Your task to perform on an android device: turn off translation in the chrome app Image 0: 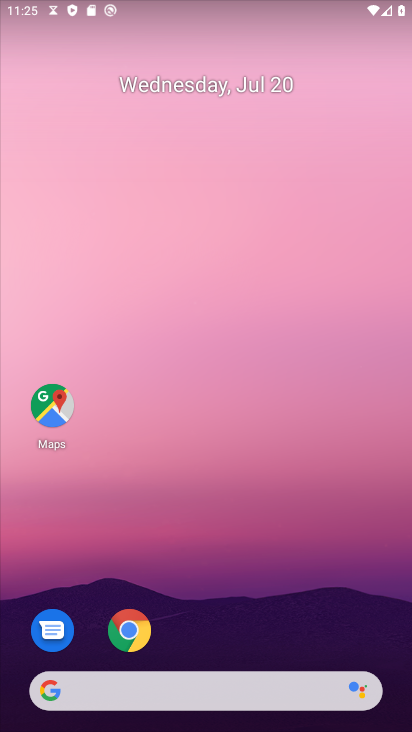
Step 0: click (137, 635)
Your task to perform on an android device: turn off translation in the chrome app Image 1: 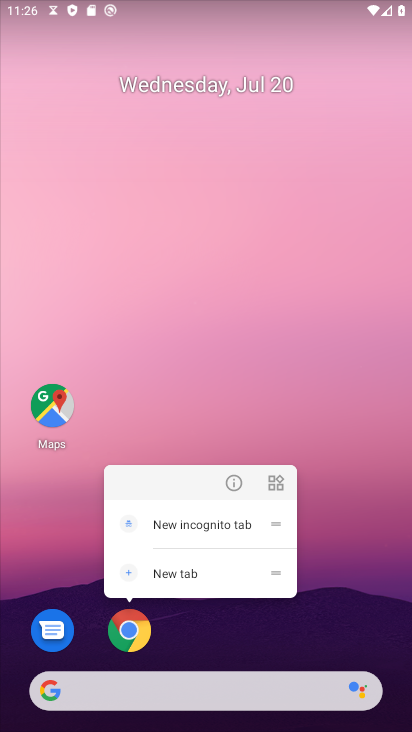
Step 1: click (122, 632)
Your task to perform on an android device: turn off translation in the chrome app Image 2: 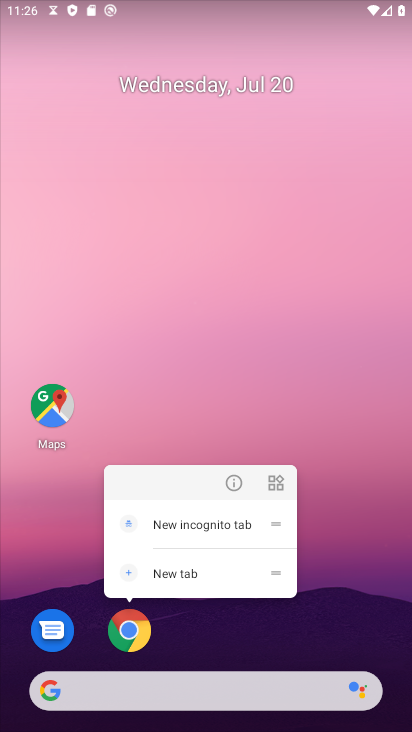
Step 2: click (131, 637)
Your task to perform on an android device: turn off translation in the chrome app Image 3: 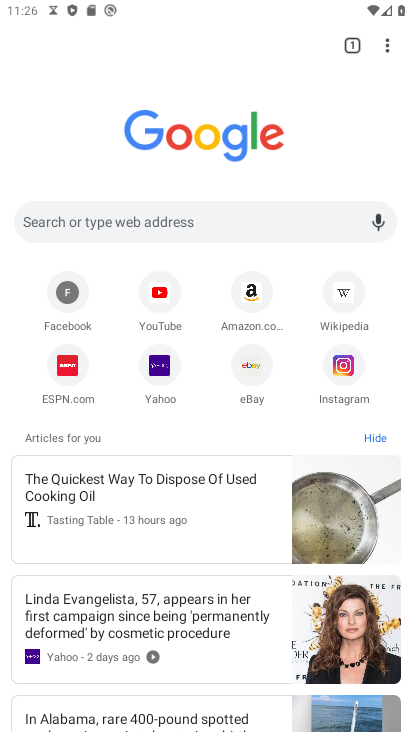
Step 3: click (389, 48)
Your task to perform on an android device: turn off translation in the chrome app Image 4: 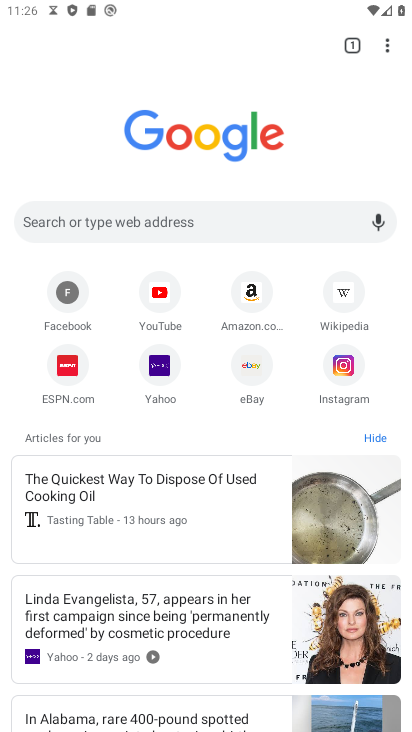
Step 4: click (385, 49)
Your task to perform on an android device: turn off translation in the chrome app Image 5: 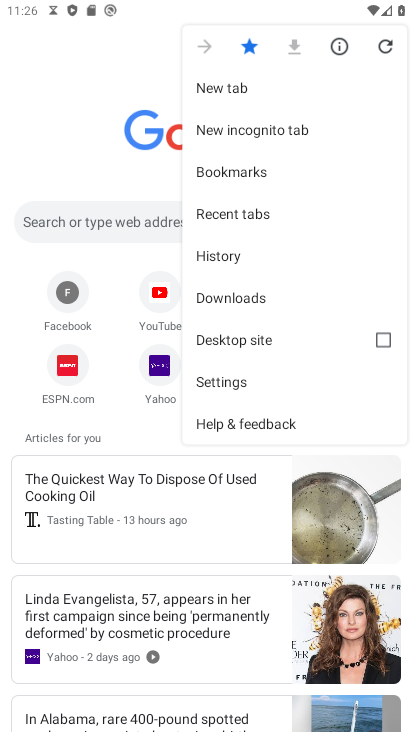
Step 5: click (224, 374)
Your task to perform on an android device: turn off translation in the chrome app Image 6: 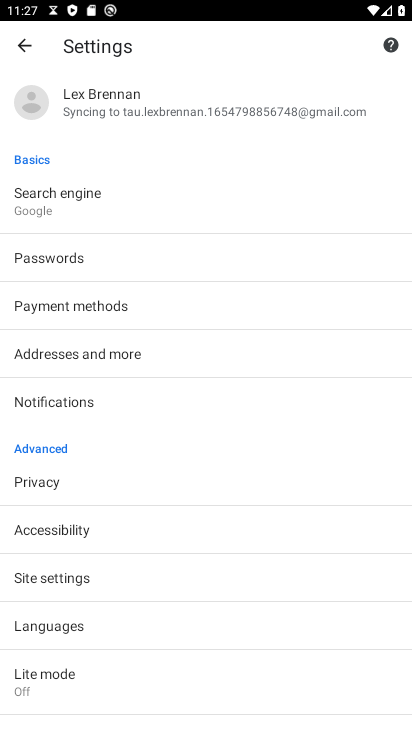
Step 6: click (94, 627)
Your task to perform on an android device: turn off translation in the chrome app Image 7: 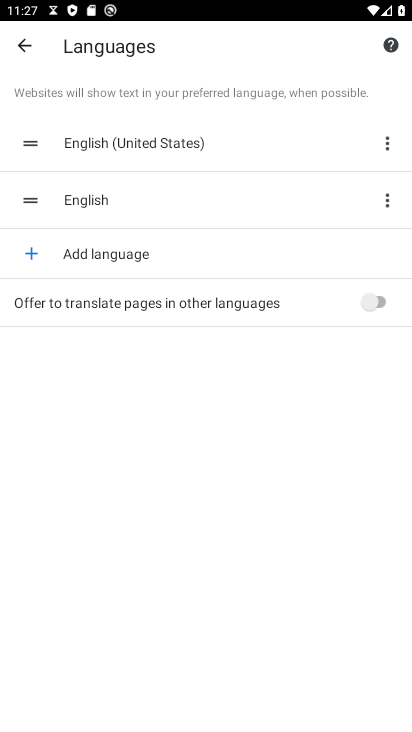
Step 7: click (372, 299)
Your task to perform on an android device: turn off translation in the chrome app Image 8: 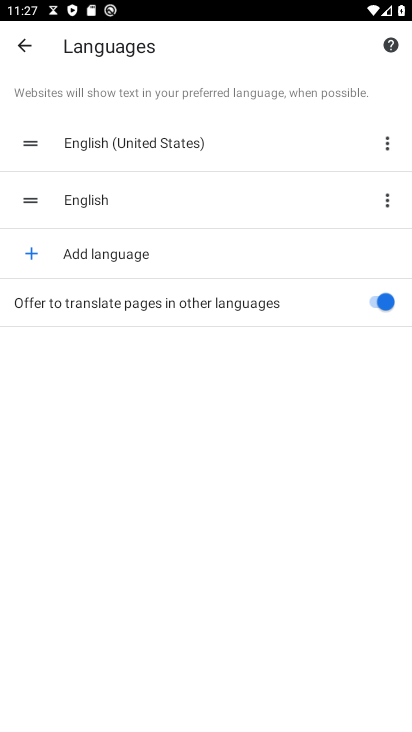
Step 8: click (385, 302)
Your task to perform on an android device: turn off translation in the chrome app Image 9: 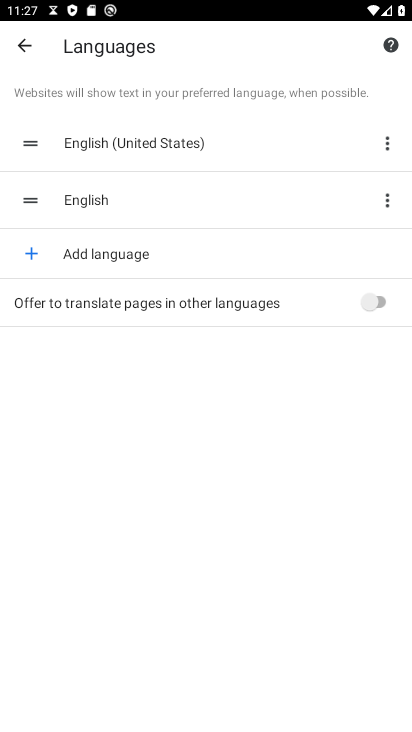
Step 9: task complete